Your task to perform on an android device: Open the phone app and click the voicemail tab. Image 0: 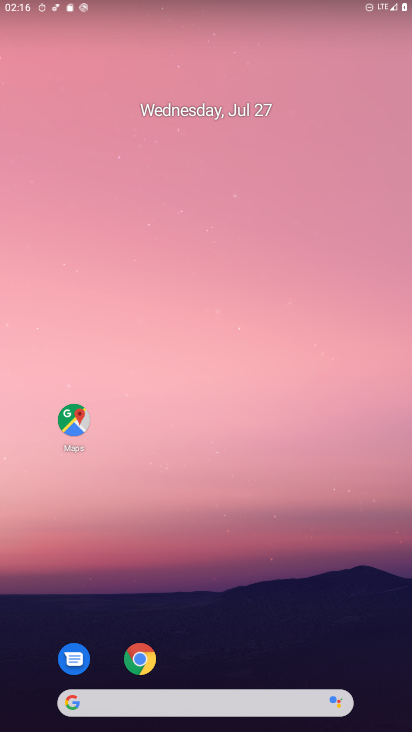
Step 0: drag from (317, 667) to (96, 21)
Your task to perform on an android device: Open the phone app and click the voicemail tab. Image 1: 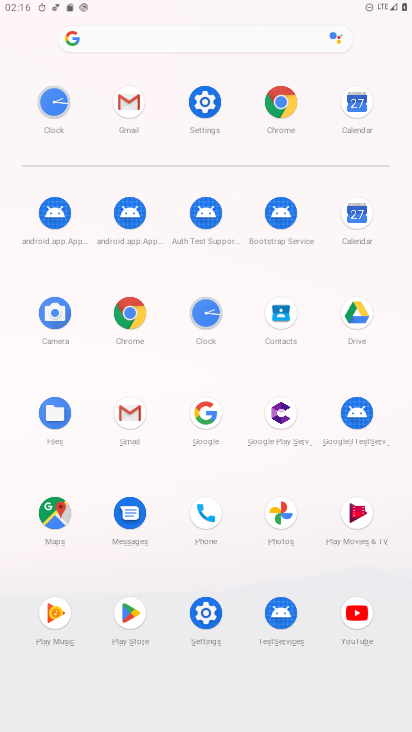
Step 1: click (208, 510)
Your task to perform on an android device: Open the phone app and click the voicemail tab. Image 2: 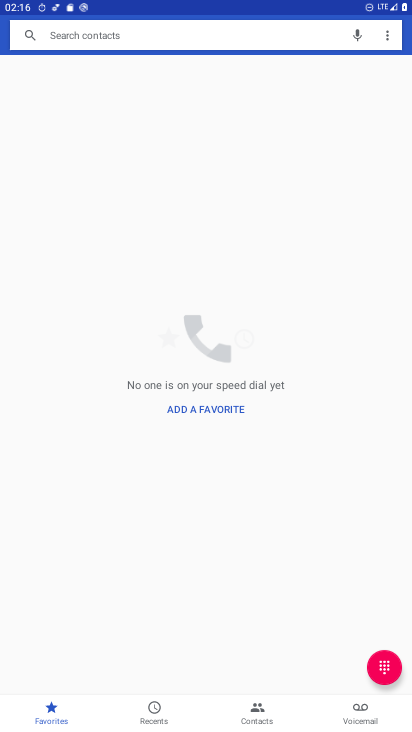
Step 2: click (375, 704)
Your task to perform on an android device: Open the phone app and click the voicemail tab. Image 3: 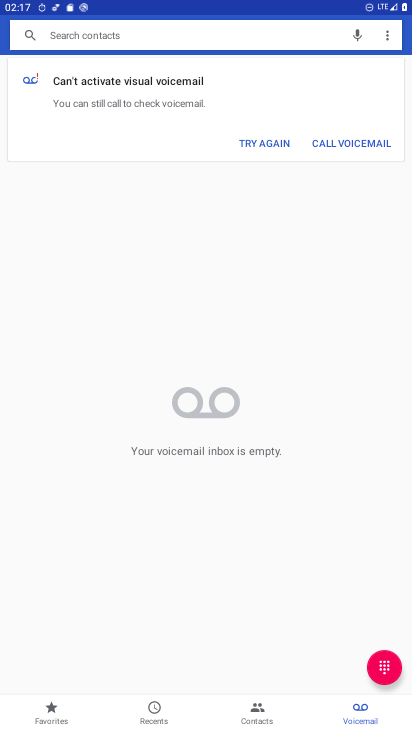
Step 3: task complete